Your task to perform on an android device: set default search engine in the chrome app Image 0: 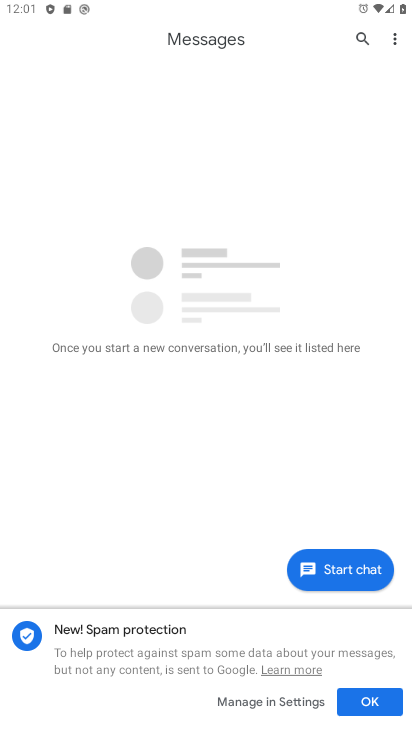
Step 0: press home button
Your task to perform on an android device: set default search engine in the chrome app Image 1: 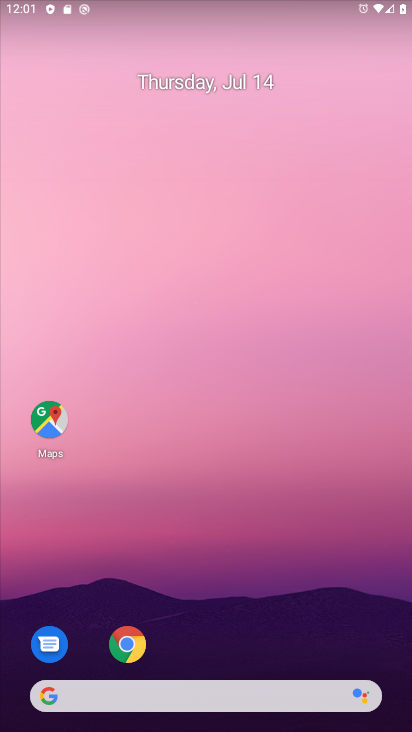
Step 1: drag from (192, 675) to (134, 257)
Your task to perform on an android device: set default search engine in the chrome app Image 2: 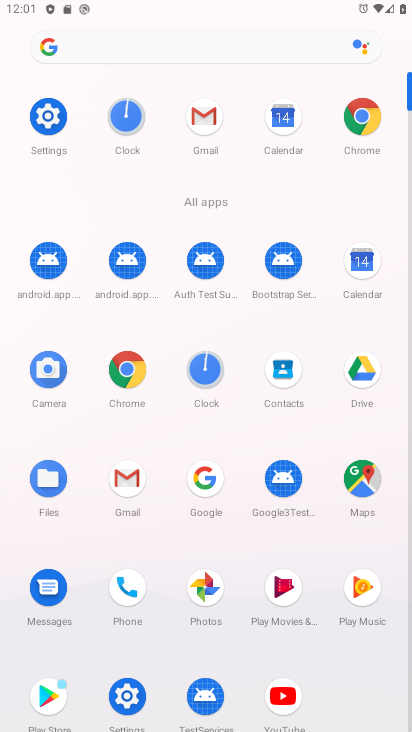
Step 2: click (373, 103)
Your task to perform on an android device: set default search engine in the chrome app Image 3: 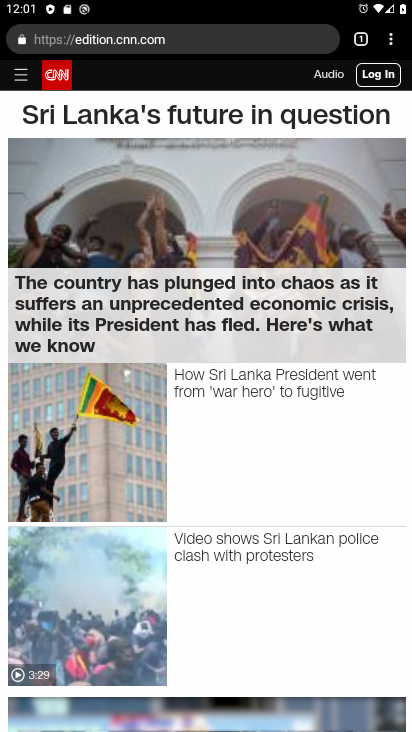
Step 3: click (391, 49)
Your task to perform on an android device: set default search engine in the chrome app Image 4: 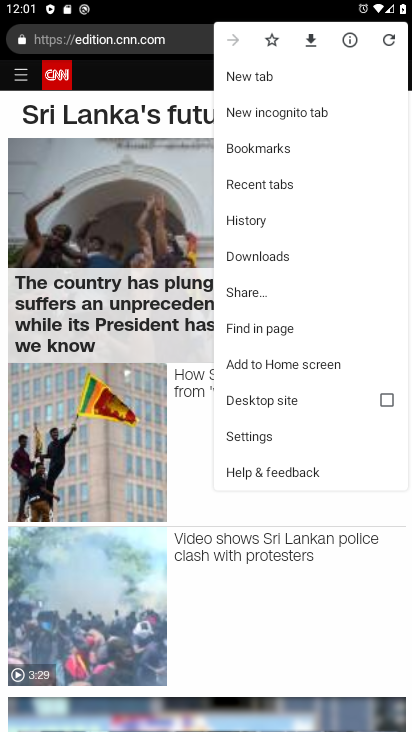
Step 4: click (232, 428)
Your task to perform on an android device: set default search engine in the chrome app Image 5: 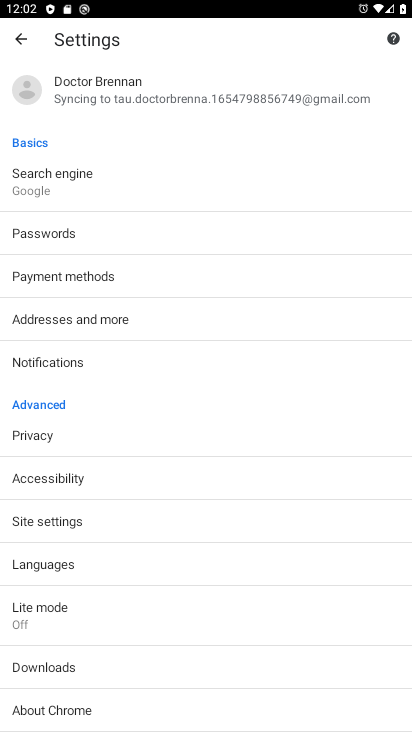
Step 5: click (62, 187)
Your task to perform on an android device: set default search engine in the chrome app Image 6: 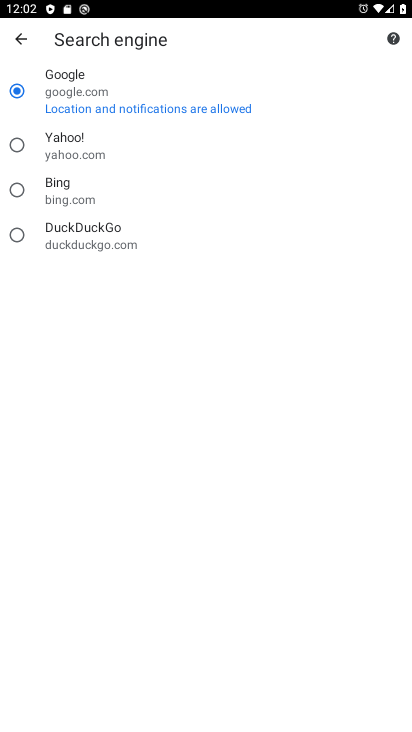
Step 6: click (12, 102)
Your task to perform on an android device: set default search engine in the chrome app Image 7: 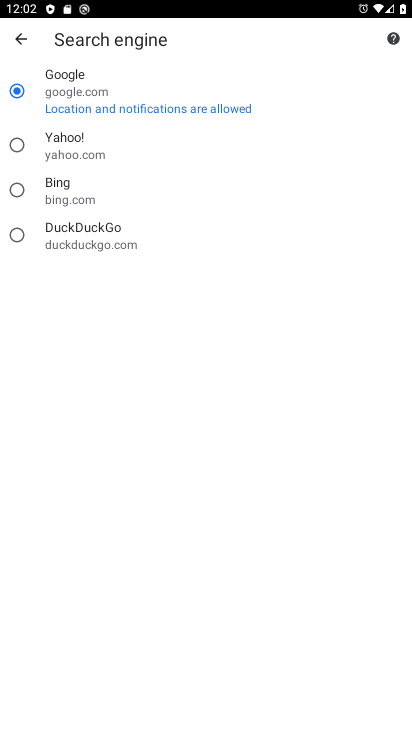
Step 7: task complete